Your task to perform on an android device: Open Chrome and go to the settings page Image 0: 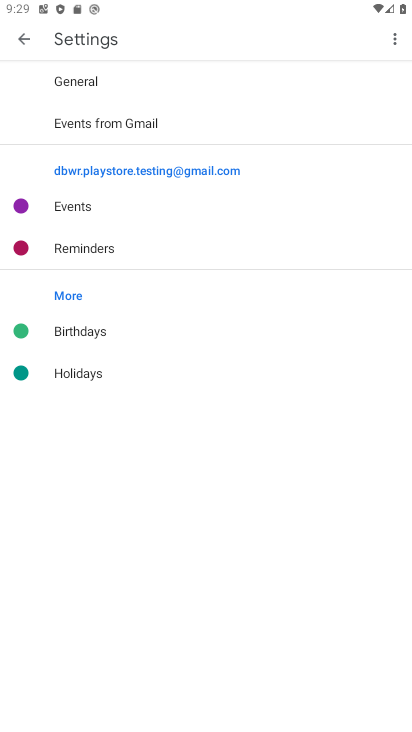
Step 0: press home button
Your task to perform on an android device: Open Chrome and go to the settings page Image 1: 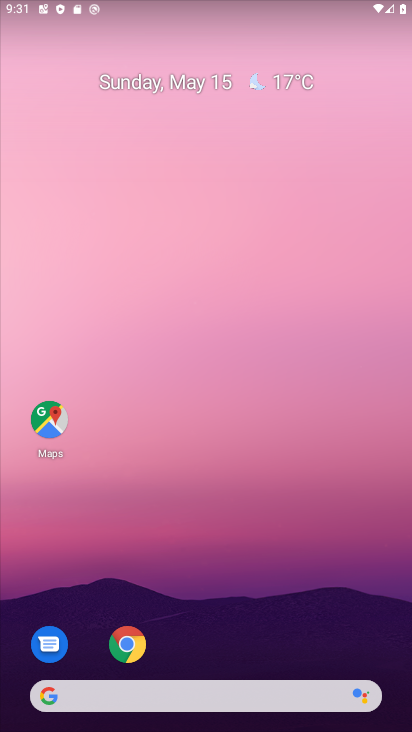
Step 1: drag from (240, 709) to (295, 254)
Your task to perform on an android device: Open Chrome and go to the settings page Image 2: 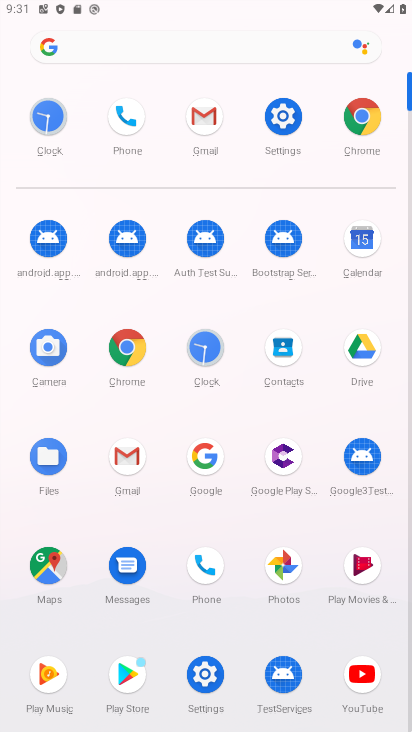
Step 2: click (361, 94)
Your task to perform on an android device: Open Chrome and go to the settings page Image 3: 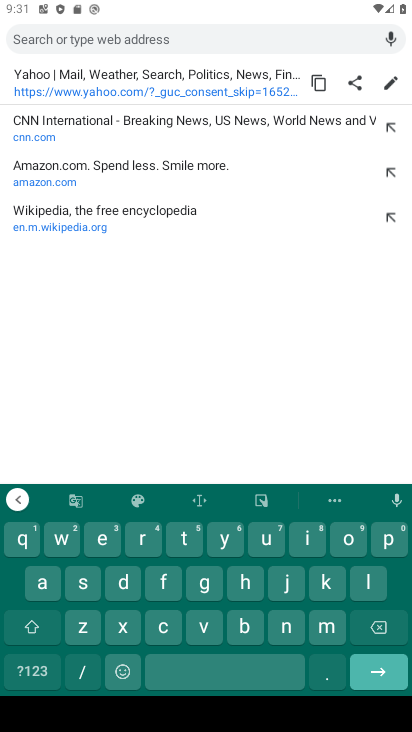
Step 3: press back button
Your task to perform on an android device: Open Chrome and go to the settings page Image 4: 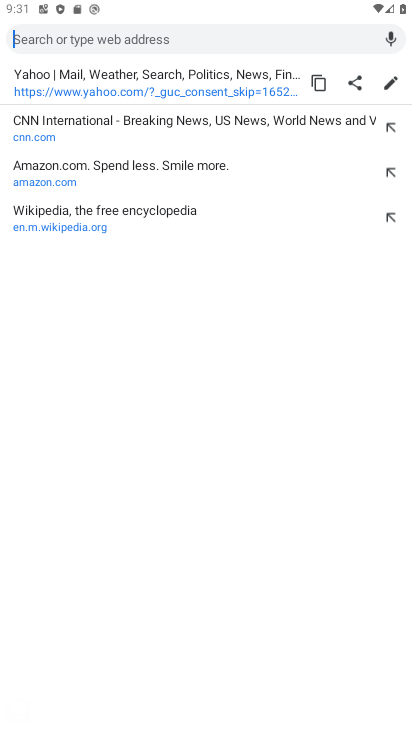
Step 4: press back button
Your task to perform on an android device: Open Chrome and go to the settings page Image 5: 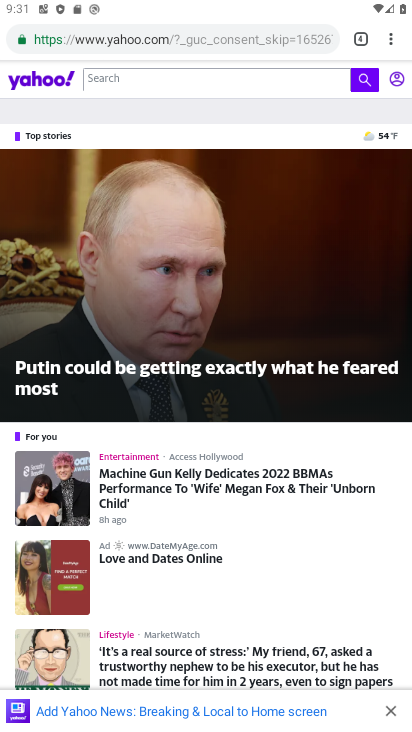
Step 5: click (388, 38)
Your task to perform on an android device: Open Chrome and go to the settings page Image 6: 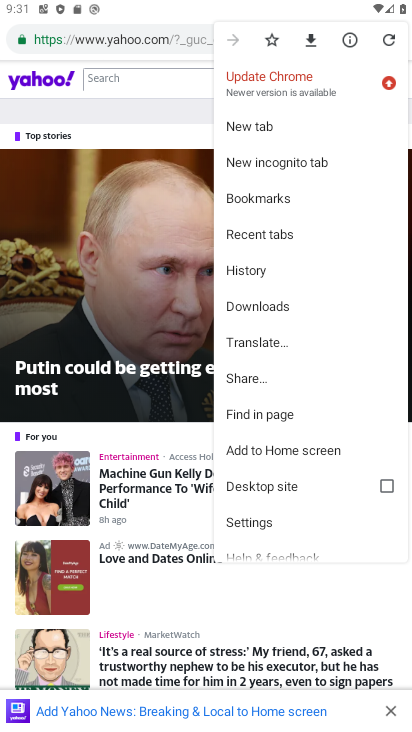
Step 6: click (249, 518)
Your task to perform on an android device: Open Chrome and go to the settings page Image 7: 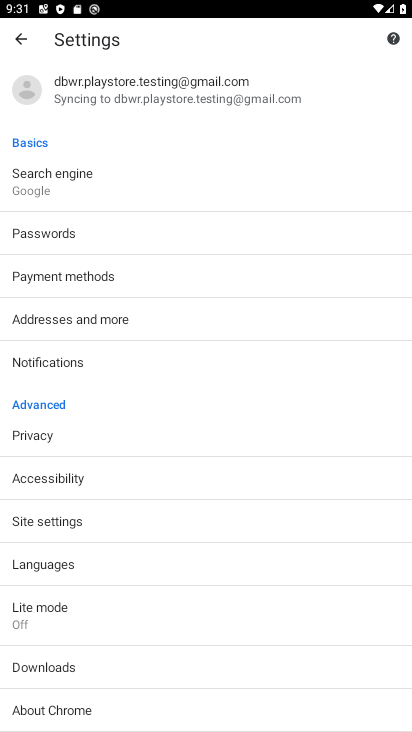
Step 7: task complete